Your task to perform on an android device: change text size in settings app Image 0: 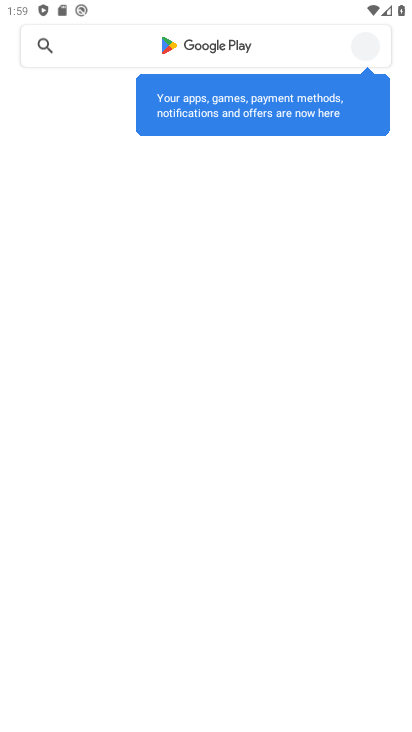
Step 0: press home button
Your task to perform on an android device: change text size in settings app Image 1: 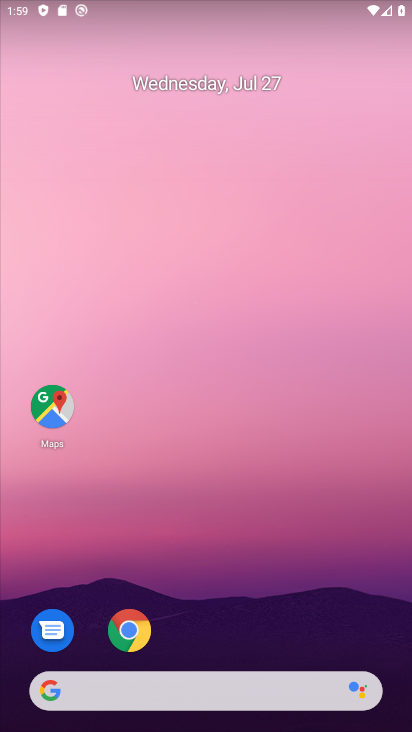
Step 1: drag from (240, 584) to (193, 35)
Your task to perform on an android device: change text size in settings app Image 2: 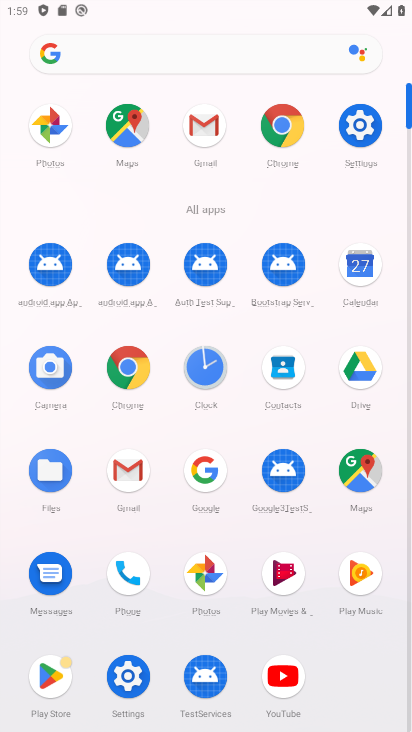
Step 2: click (129, 669)
Your task to perform on an android device: change text size in settings app Image 3: 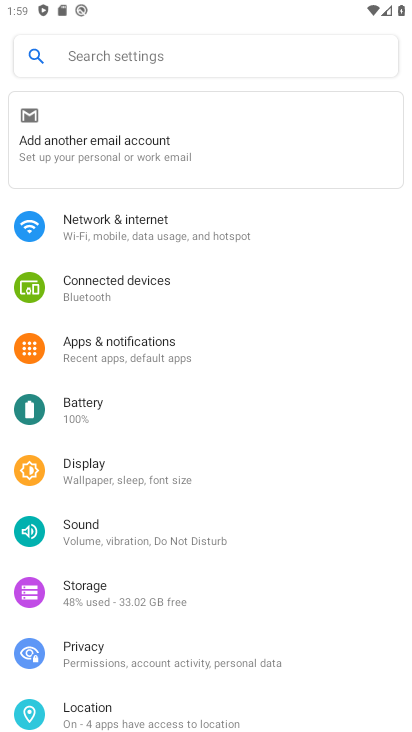
Step 3: click (135, 475)
Your task to perform on an android device: change text size in settings app Image 4: 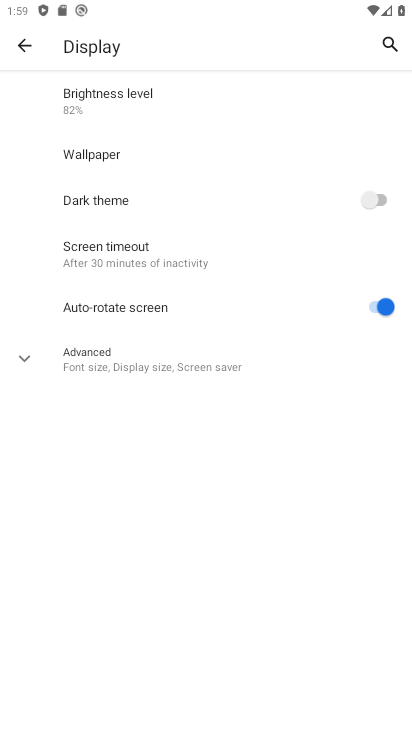
Step 4: click (223, 360)
Your task to perform on an android device: change text size in settings app Image 5: 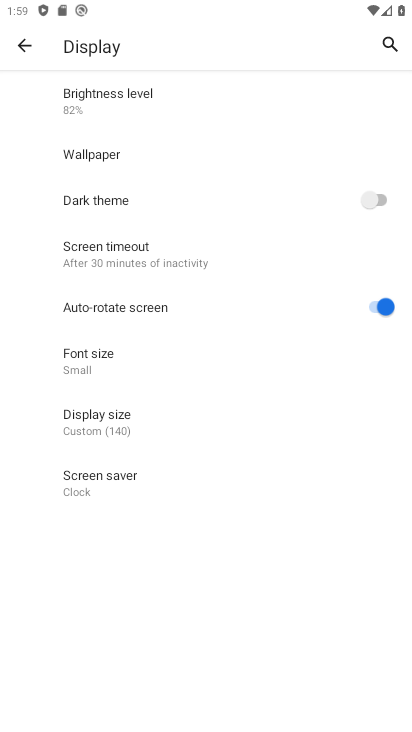
Step 5: click (110, 366)
Your task to perform on an android device: change text size in settings app Image 6: 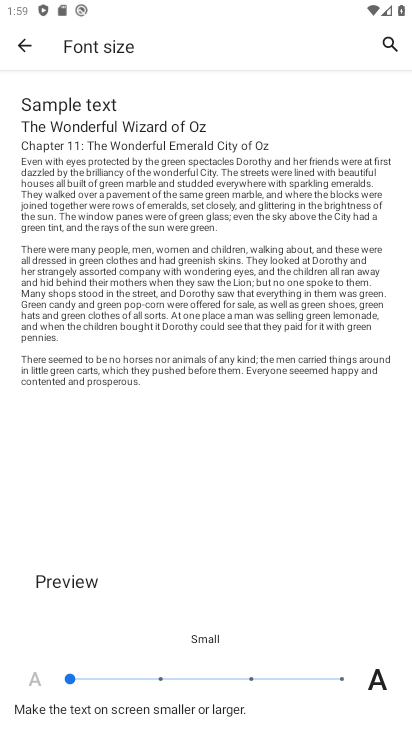
Step 6: click (158, 678)
Your task to perform on an android device: change text size in settings app Image 7: 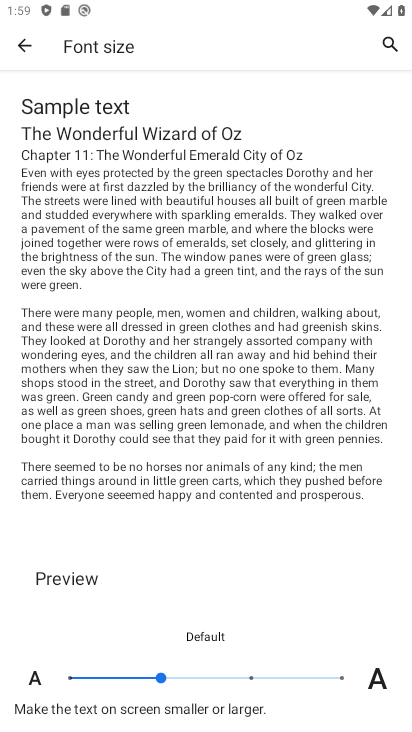
Step 7: task complete